Your task to perform on an android device: change the clock display to analog Image 0: 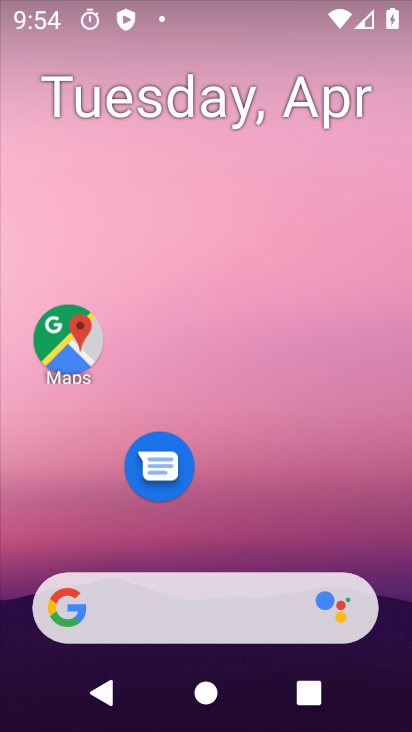
Step 0: drag from (249, 521) to (360, 3)
Your task to perform on an android device: change the clock display to analog Image 1: 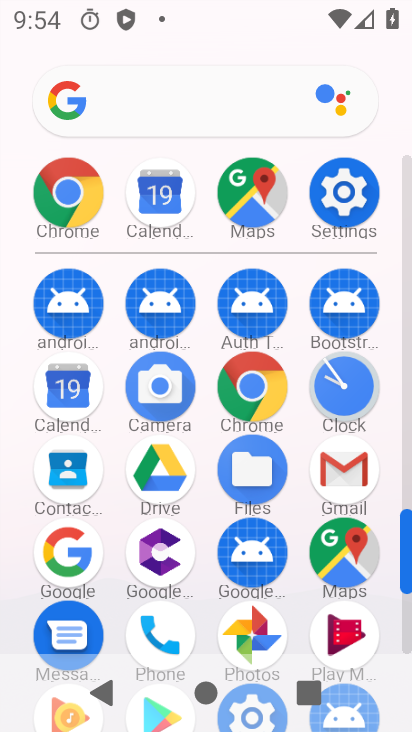
Step 1: click (350, 409)
Your task to perform on an android device: change the clock display to analog Image 2: 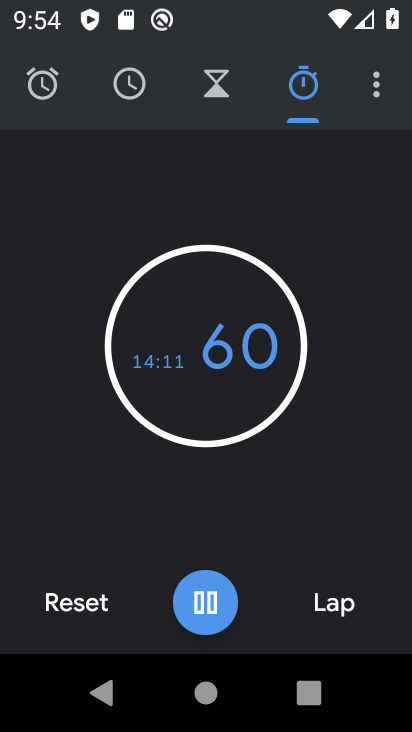
Step 2: click (368, 91)
Your task to perform on an android device: change the clock display to analog Image 3: 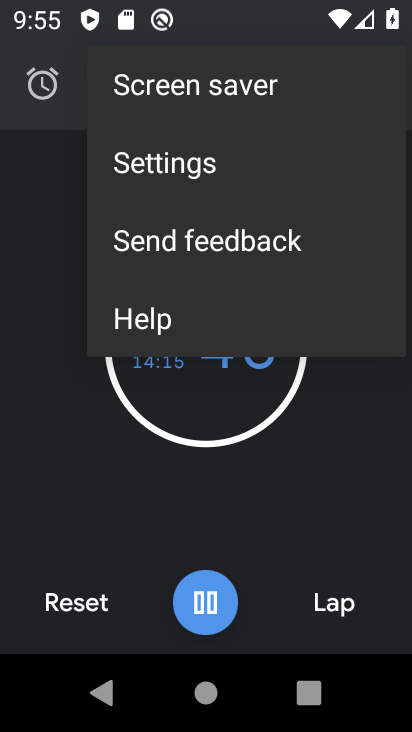
Step 3: click (269, 157)
Your task to perform on an android device: change the clock display to analog Image 4: 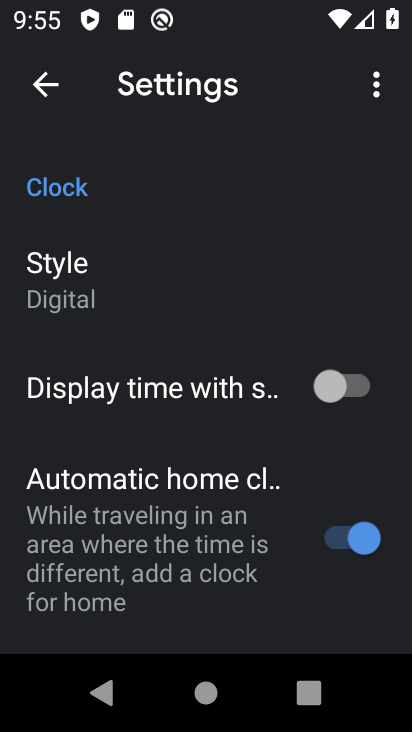
Step 4: click (173, 286)
Your task to perform on an android device: change the clock display to analog Image 5: 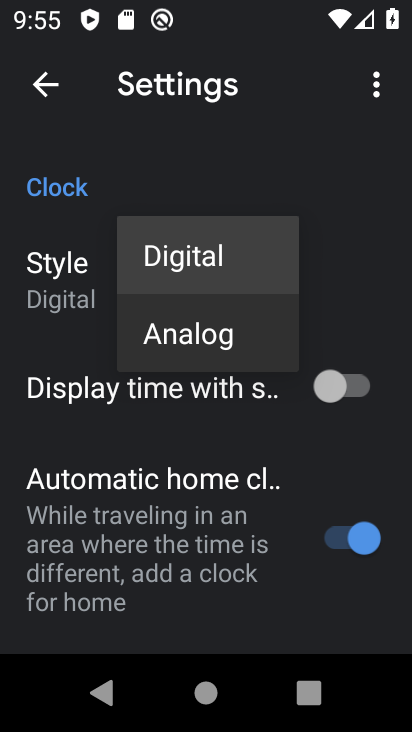
Step 5: click (202, 338)
Your task to perform on an android device: change the clock display to analog Image 6: 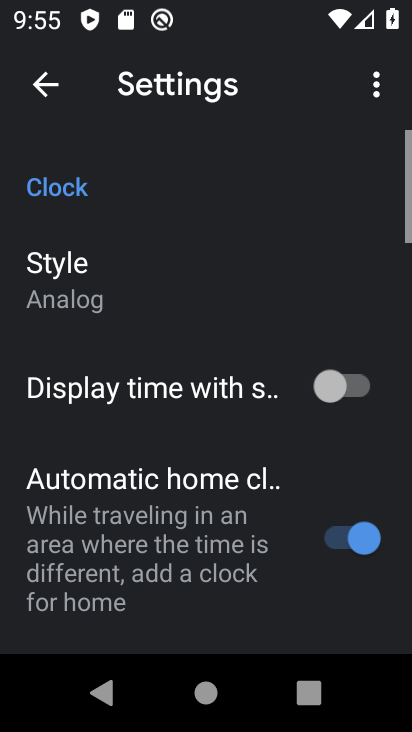
Step 6: task complete